Your task to perform on an android device: Open the phone app and click the voicemail tab. Image 0: 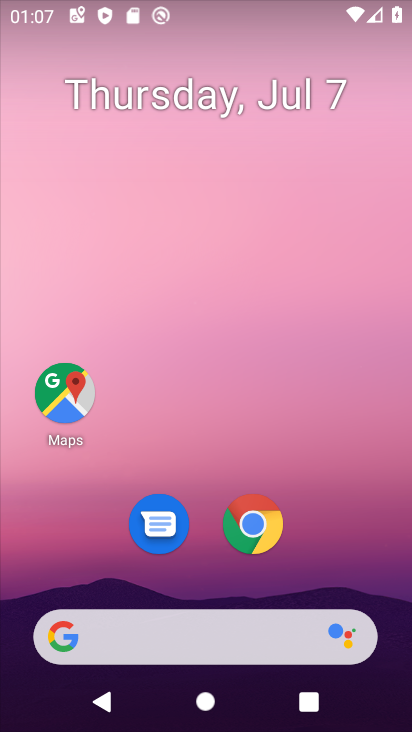
Step 0: drag from (273, 465) to (290, 3)
Your task to perform on an android device: Open the phone app and click the voicemail tab. Image 1: 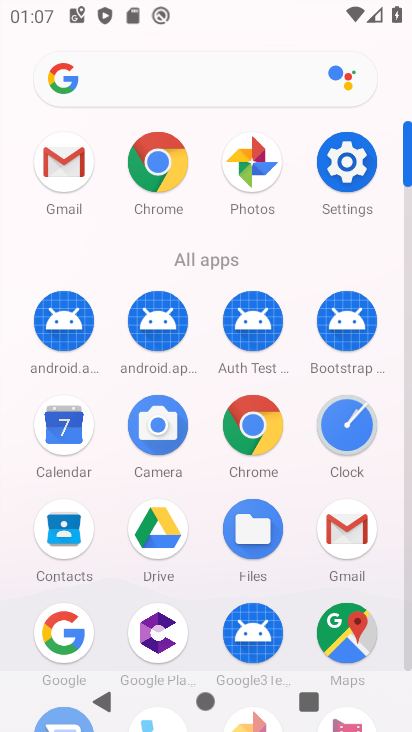
Step 1: drag from (207, 461) to (231, 178)
Your task to perform on an android device: Open the phone app and click the voicemail tab. Image 2: 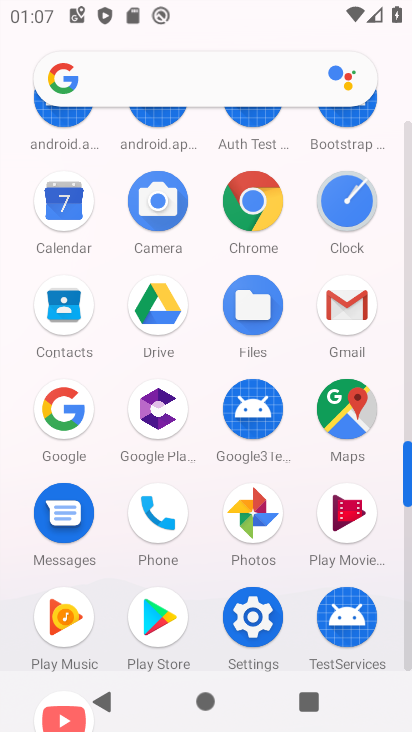
Step 2: click (168, 507)
Your task to perform on an android device: Open the phone app and click the voicemail tab. Image 3: 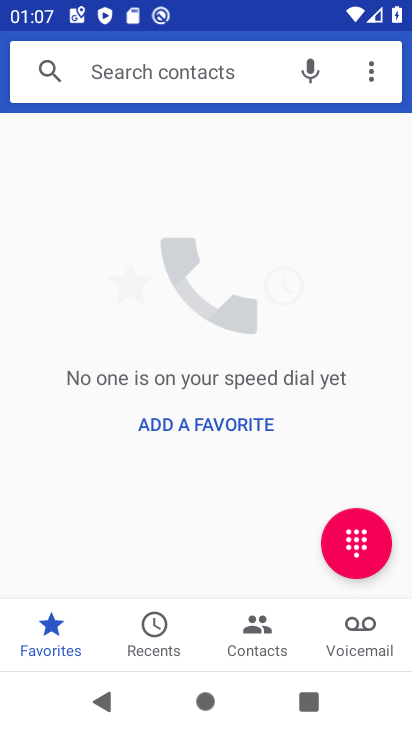
Step 3: click (358, 647)
Your task to perform on an android device: Open the phone app and click the voicemail tab. Image 4: 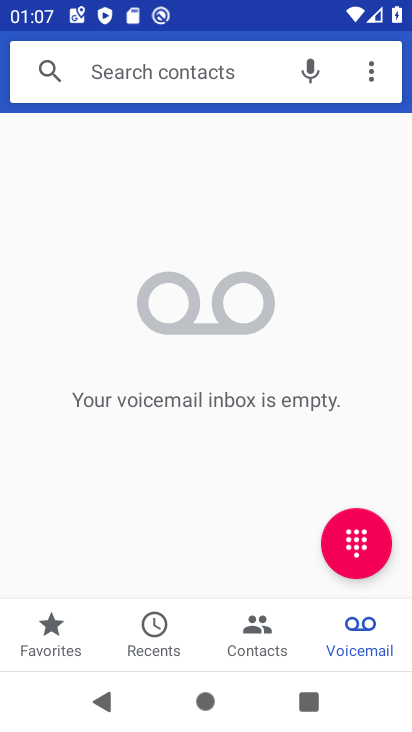
Step 4: task complete